Your task to perform on an android device: Open Yahoo.com Image 0: 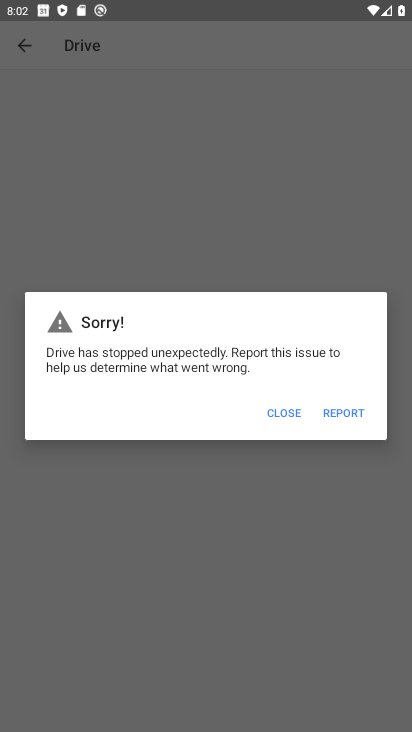
Step 0: press home button
Your task to perform on an android device: Open Yahoo.com Image 1: 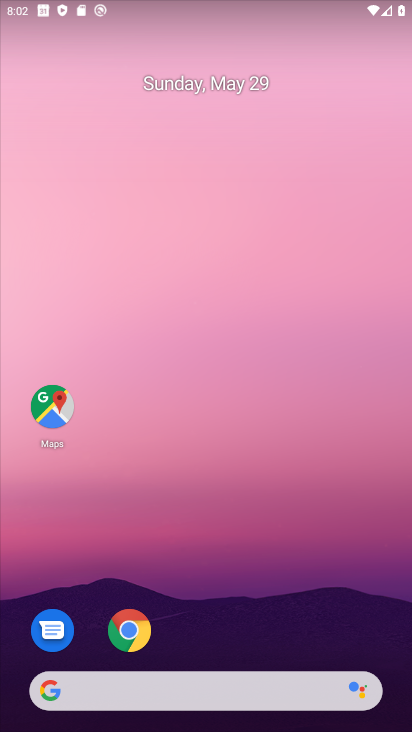
Step 1: drag from (210, 658) to (94, 15)
Your task to perform on an android device: Open Yahoo.com Image 2: 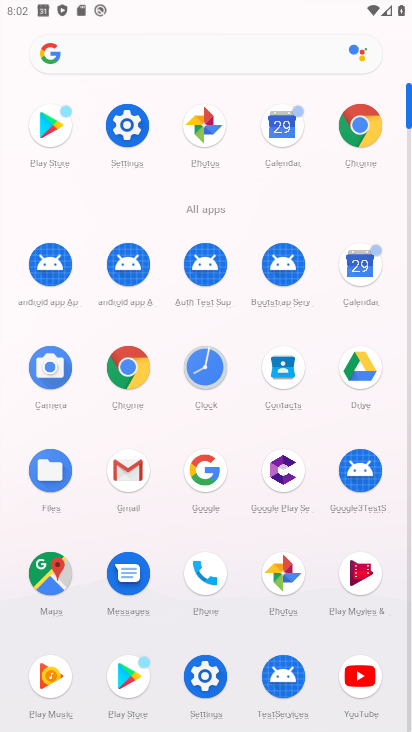
Step 2: click (134, 374)
Your task to perform on an android device: Open Yahoo.com Image 3: 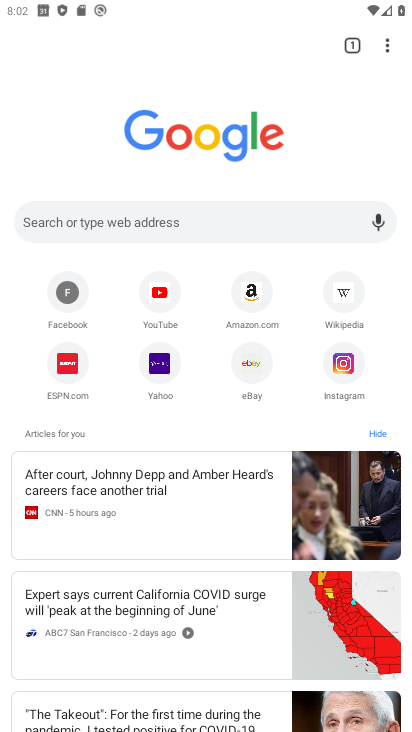
Step 3: click (152, 369)
Your task to perform on an android device: Open Yahoo.com Image 4: 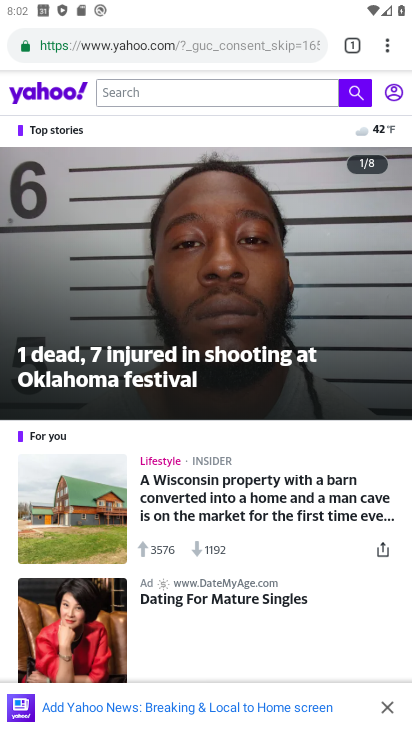
Step 4: task complete